Your task to perform on an android device: When is my next appointment? Image 0: 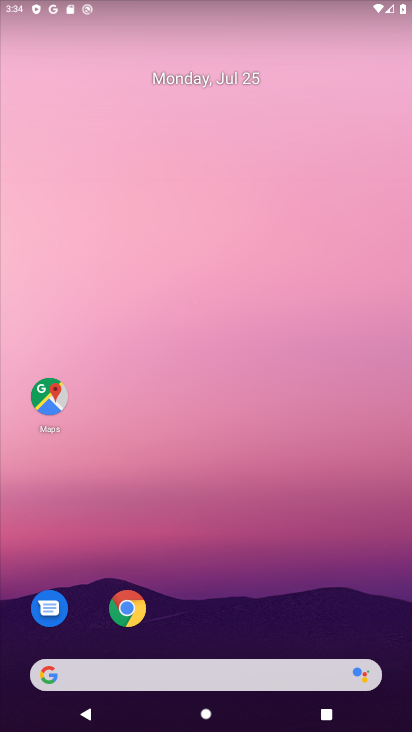
Step 0: drag from (221, 118) to (221, 31)
Your task to perform on an android device: When is my next appointment? Image 1: 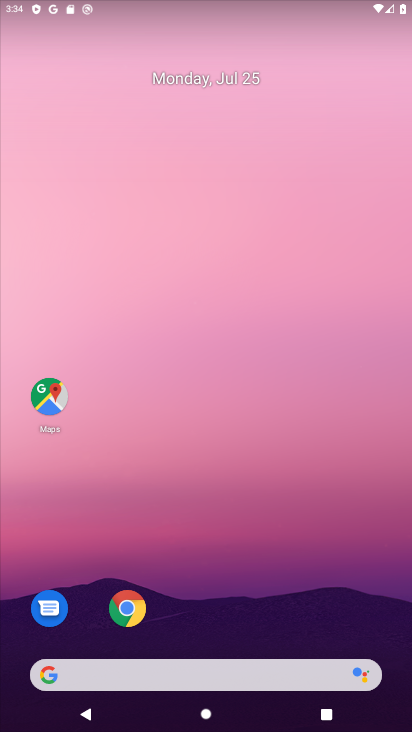
Step 1: drag from (218, 628) to (258, 40)
Your task to perform on an android device: When is my next appointment? Image 2: 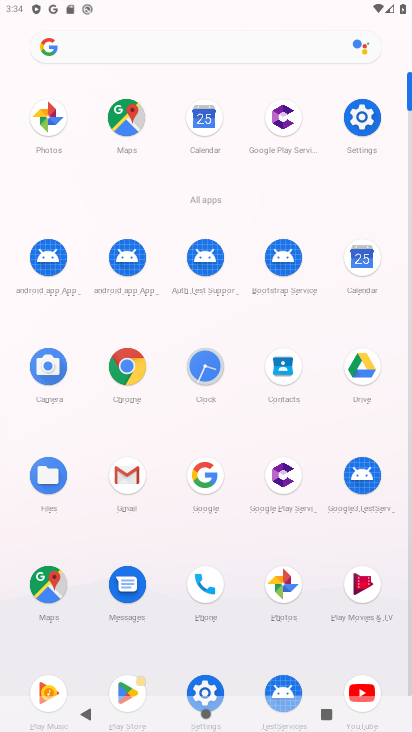
Step 2: click (359, 255)
Your task to perform on an android device: When is my next appointment? Image 3: 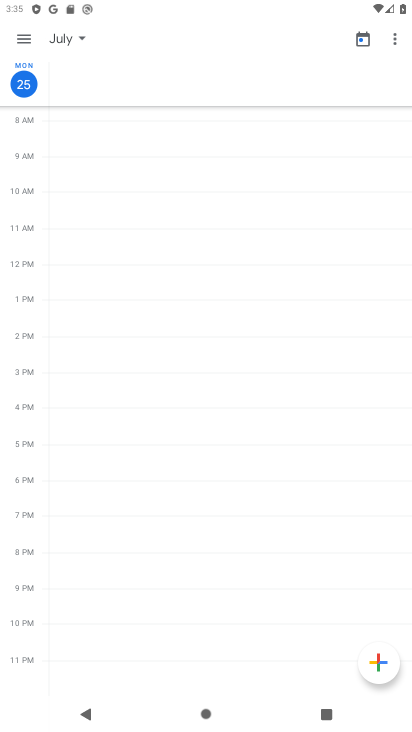
Step 3: drag from (29, 168) to (59, 599)
Your task to perform on an android device: When is my next appointment? Image 4: 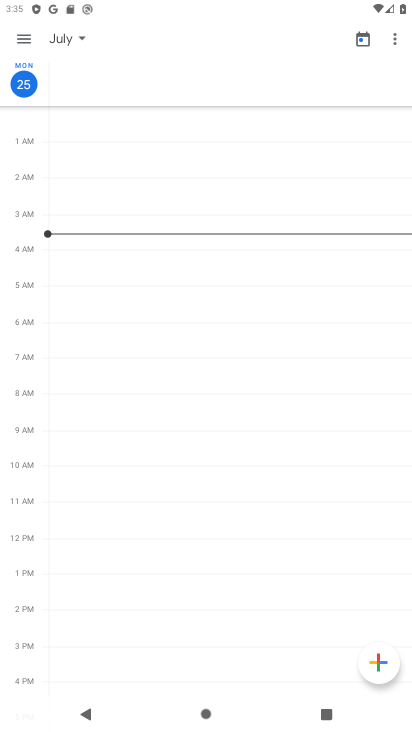
Step 4: click (30, 85)
Your task to perform on an android device: When is my next appointment? Image 5: 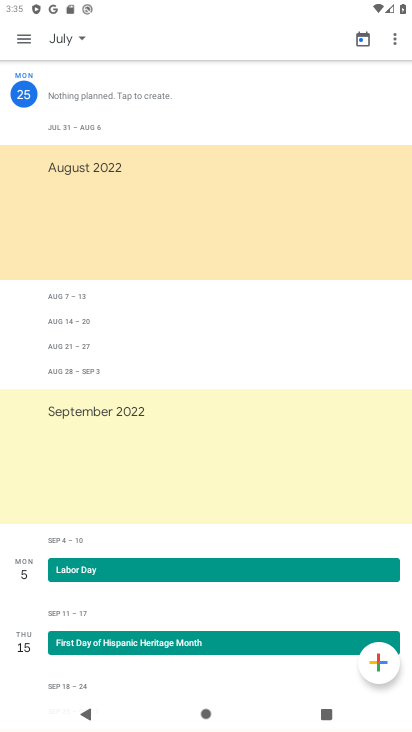
Step 5: task complete